Your task to perform on an android device: Go to Google maps Image 0: 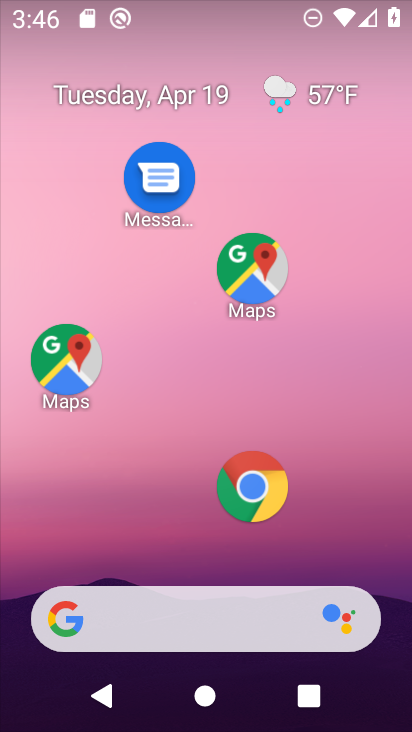
Step 0: click (59, 384)
Your task to perform on an android device: Go to Google maps Image 1: 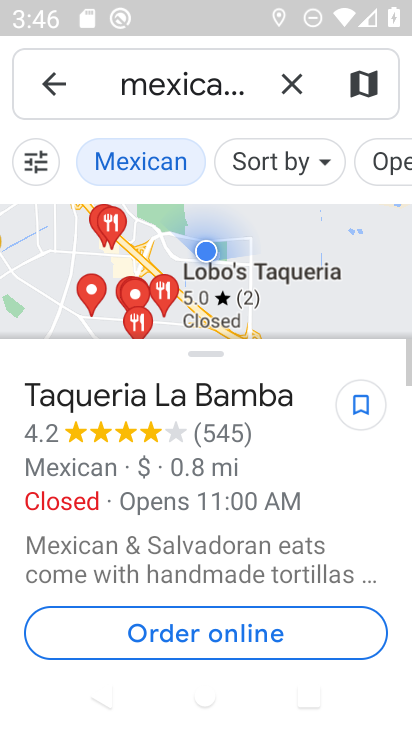
Step 1: task complete